Your task to perform on an android device: Open Youtube and go to "Your channel" Image 0: 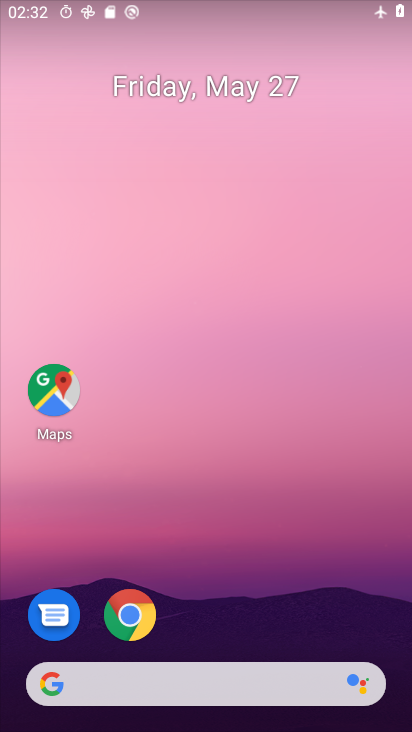
Step 0: drag from (367, 624) to (373, 233)
Your task to perform on an android device: Open Youtube and go to "Your channel" Image 1: 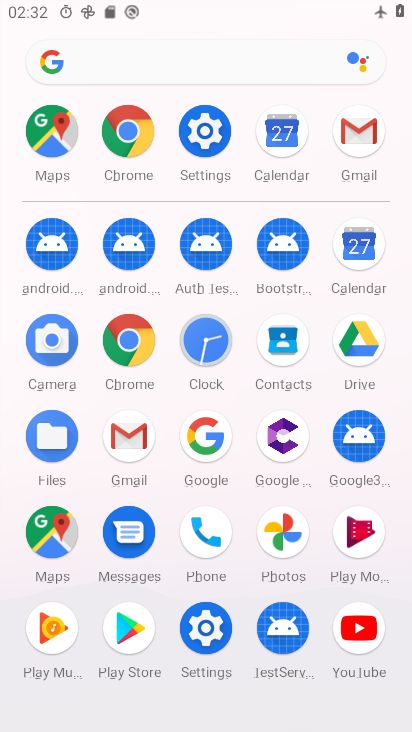
Step 1: click (356, 643)
Your task to perform on an android device: Open Youtube and go to "Your channel" Image 2: 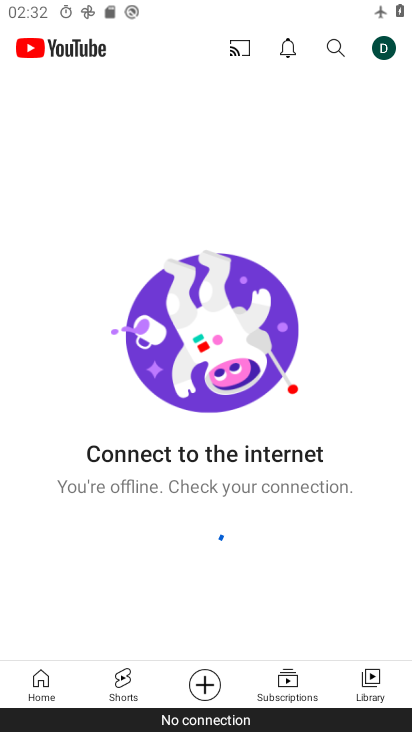
Step 2: click (380, 49)
Your task to perform on an android device: Open Youtube and go to "Your channel" Image 3: 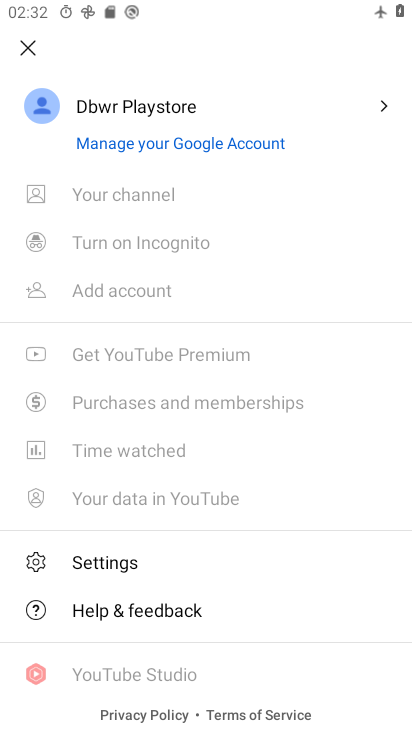
Step 3: click (155, 202)
Your task to perform on an android device: Open Youtube and go to "Your channel" Image 4: 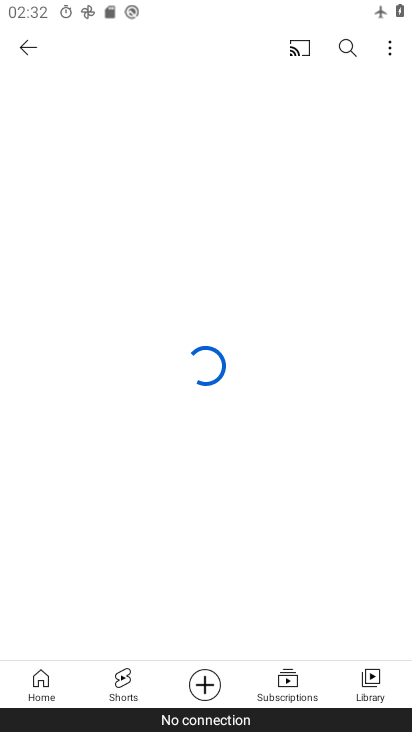
Step 4: task complete